Your task to perform on an android device: open app "Viber Messenger" Image 0: 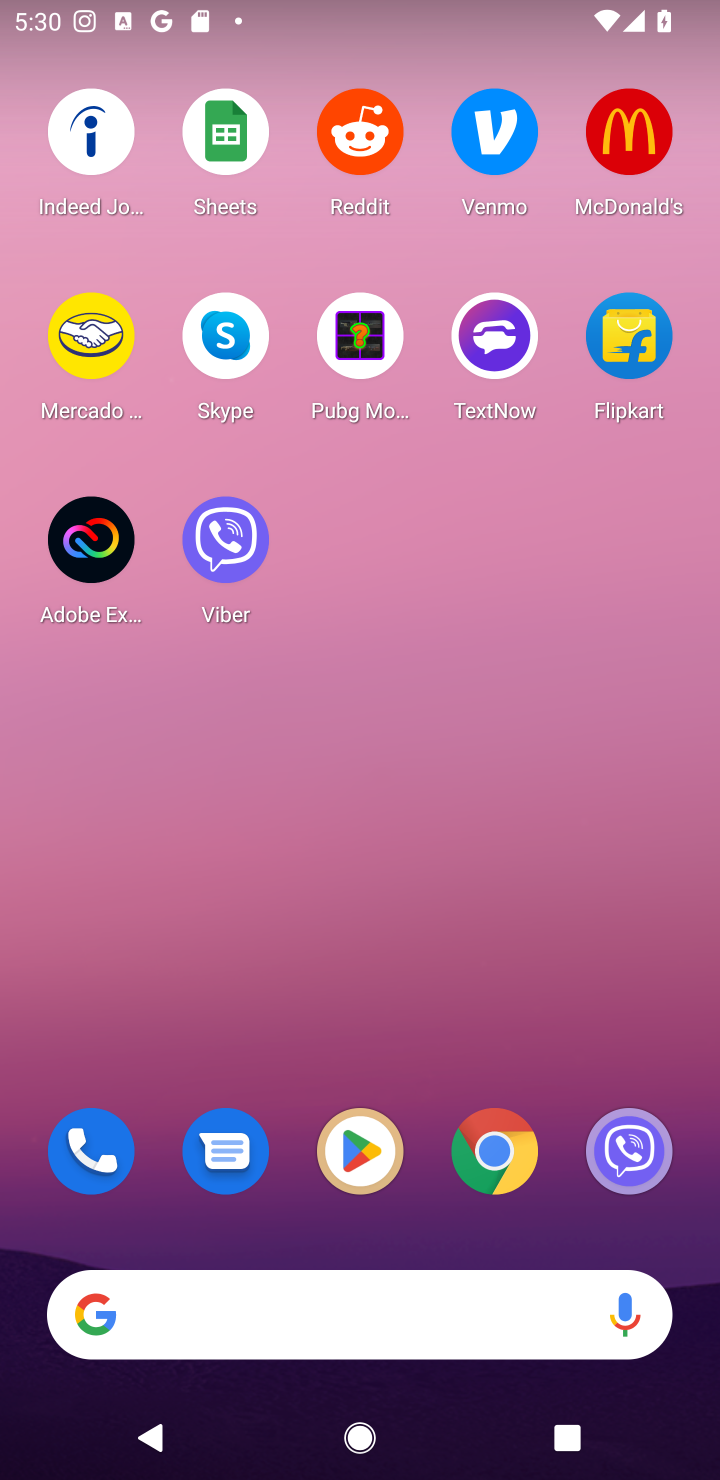
Step 0: press home button
Your task to perform on an android device: open app "Viber Messenger" Image 1: 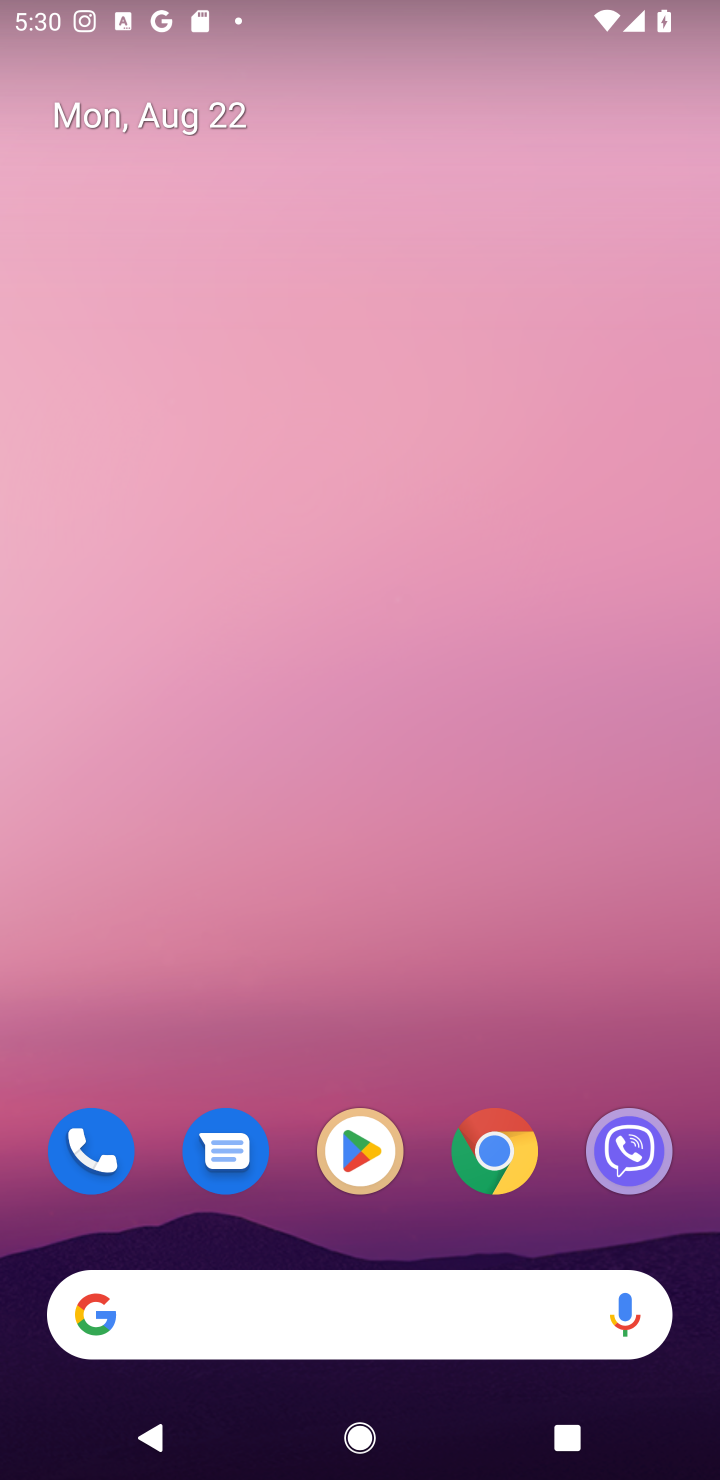
Step 1: click (351, 1159)
Your task to perform on an android device: open app "Viber Messenger" Image 2: 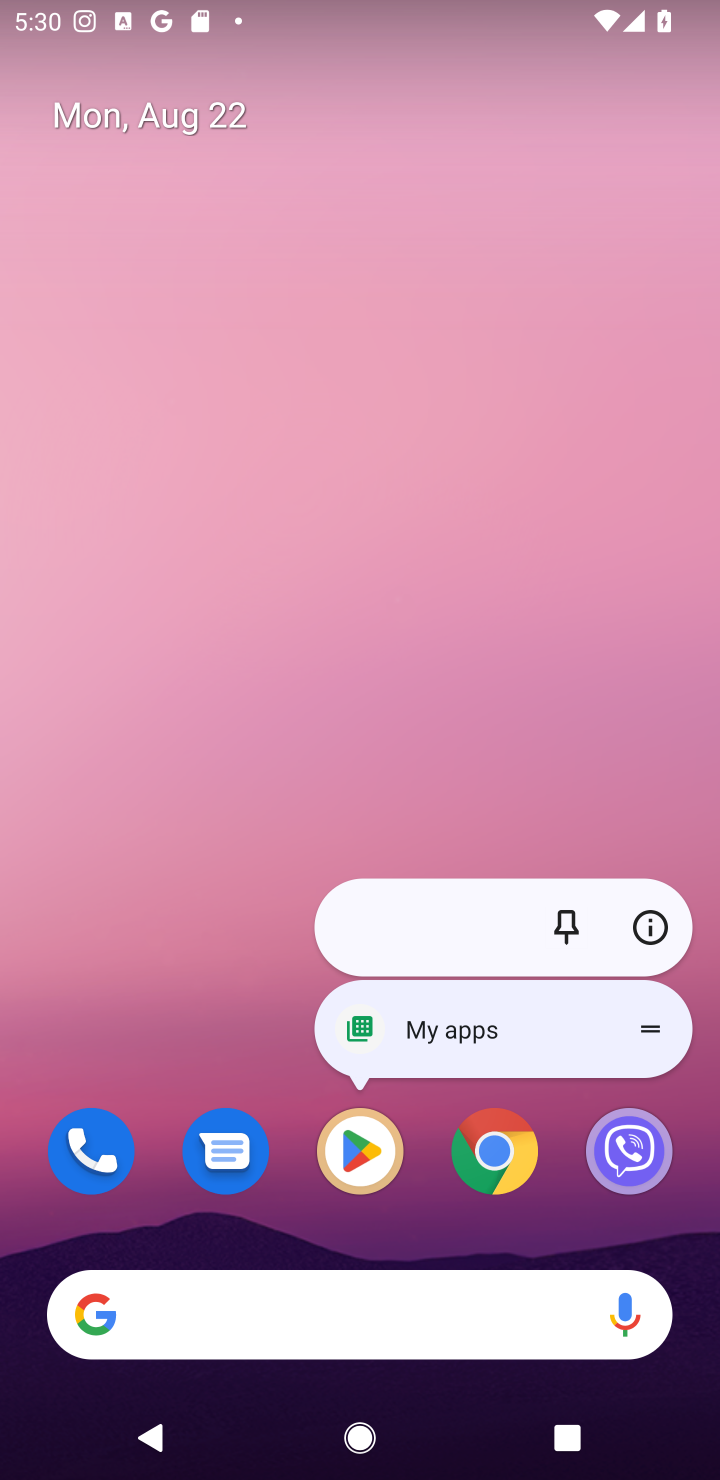
Step 2: click (351, 1164)
Your task to perform on an android device: open app "Viber Messenger" Image 3: 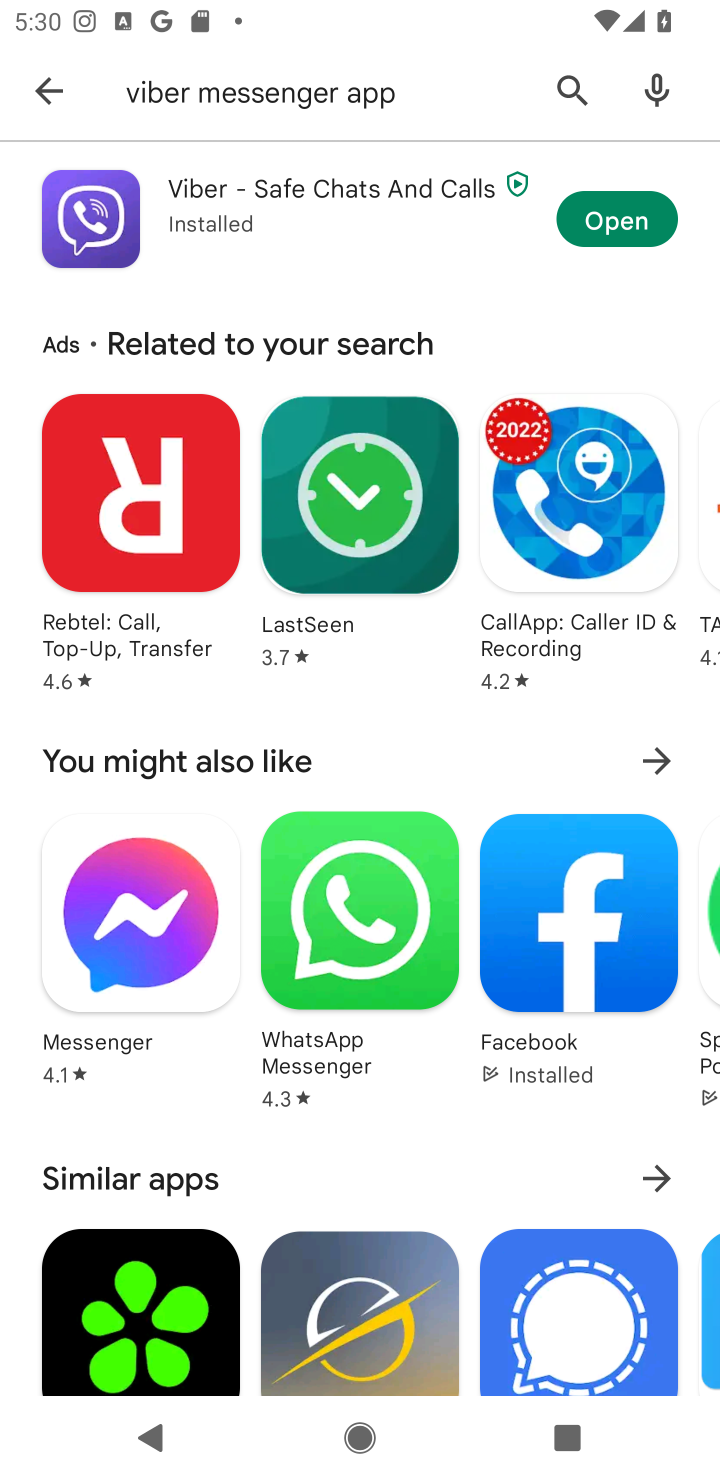
Step 3: click (563, 82)
Your task to perform on an android device: open app "Viber Messenger" Image 4: 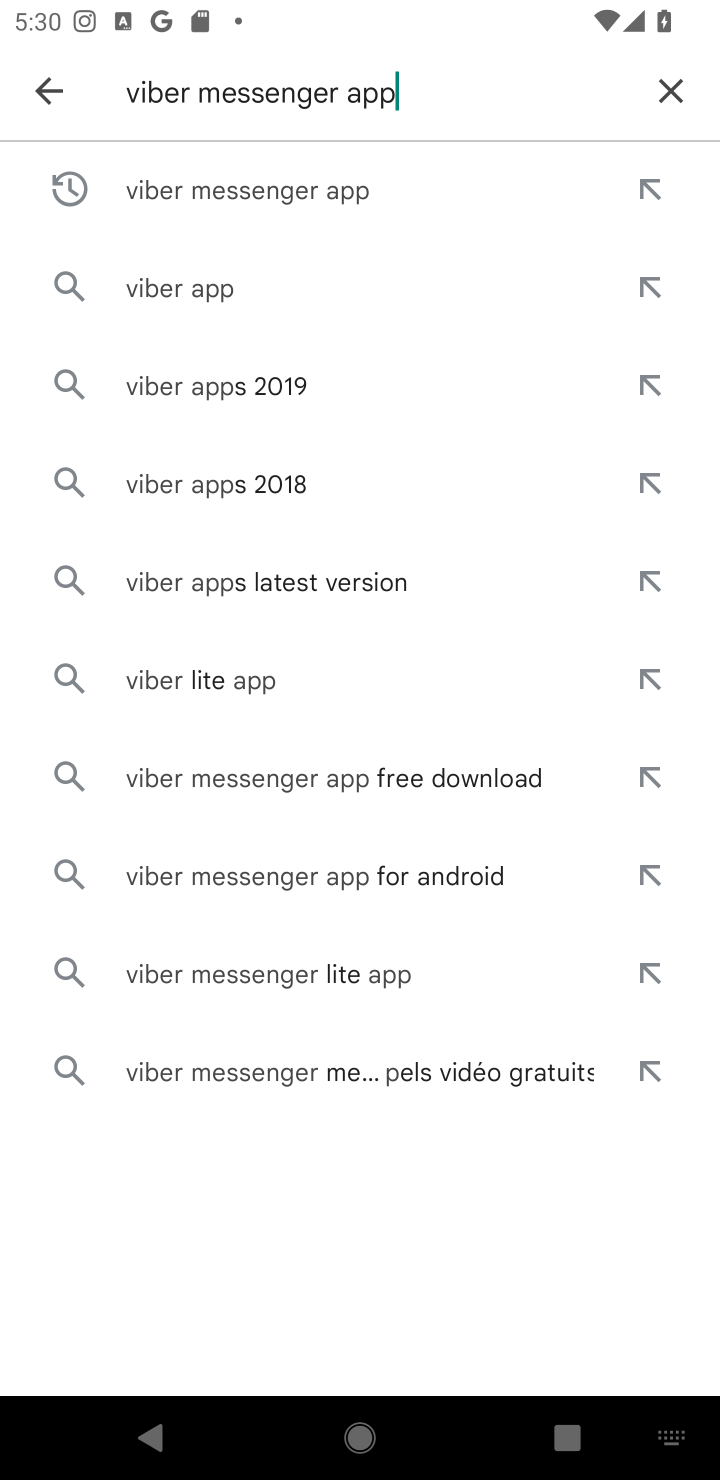
Step 4: click (664, 85)
Your task to perform on an android device: open app "Viber Messenger" Image 5: 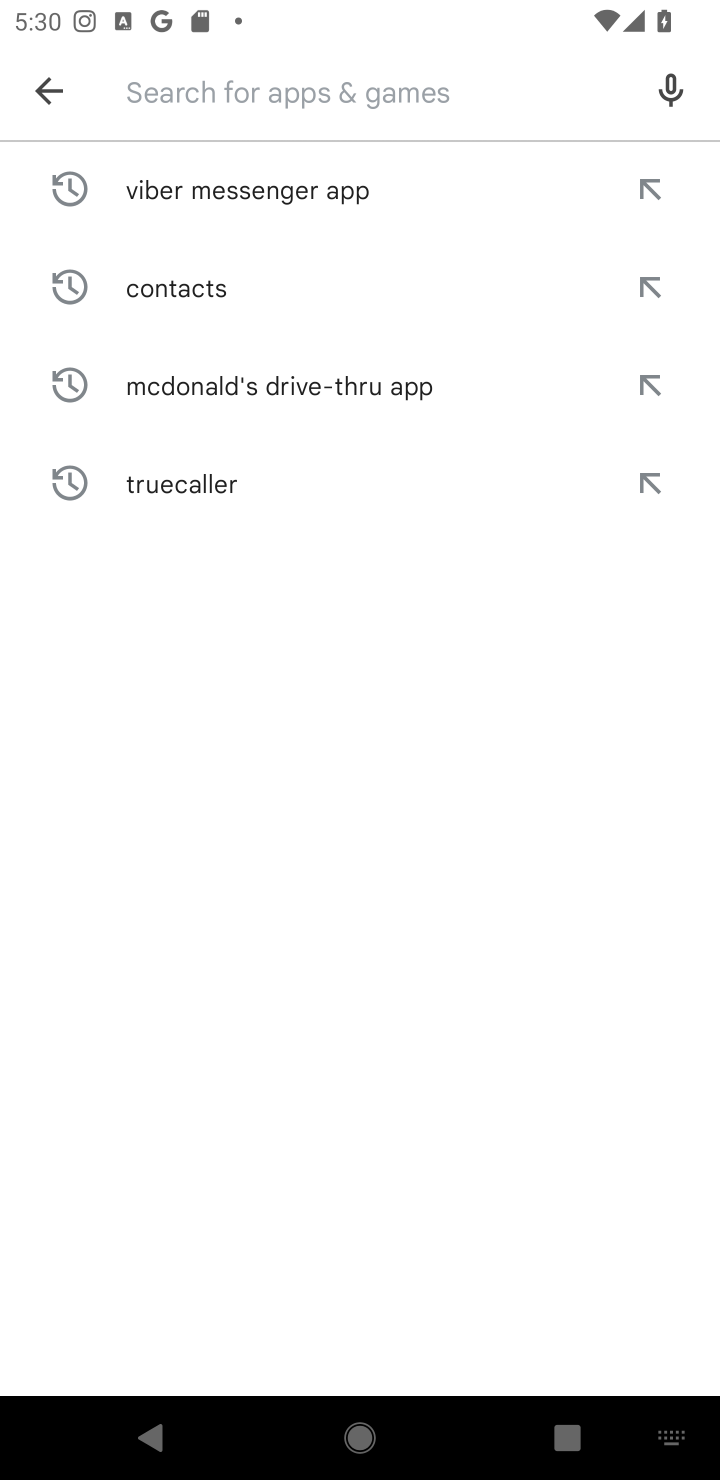
Step 5: type "Viber Messenger"
Your task to perform on an android device: open app "Viber Messenger" Image 6: 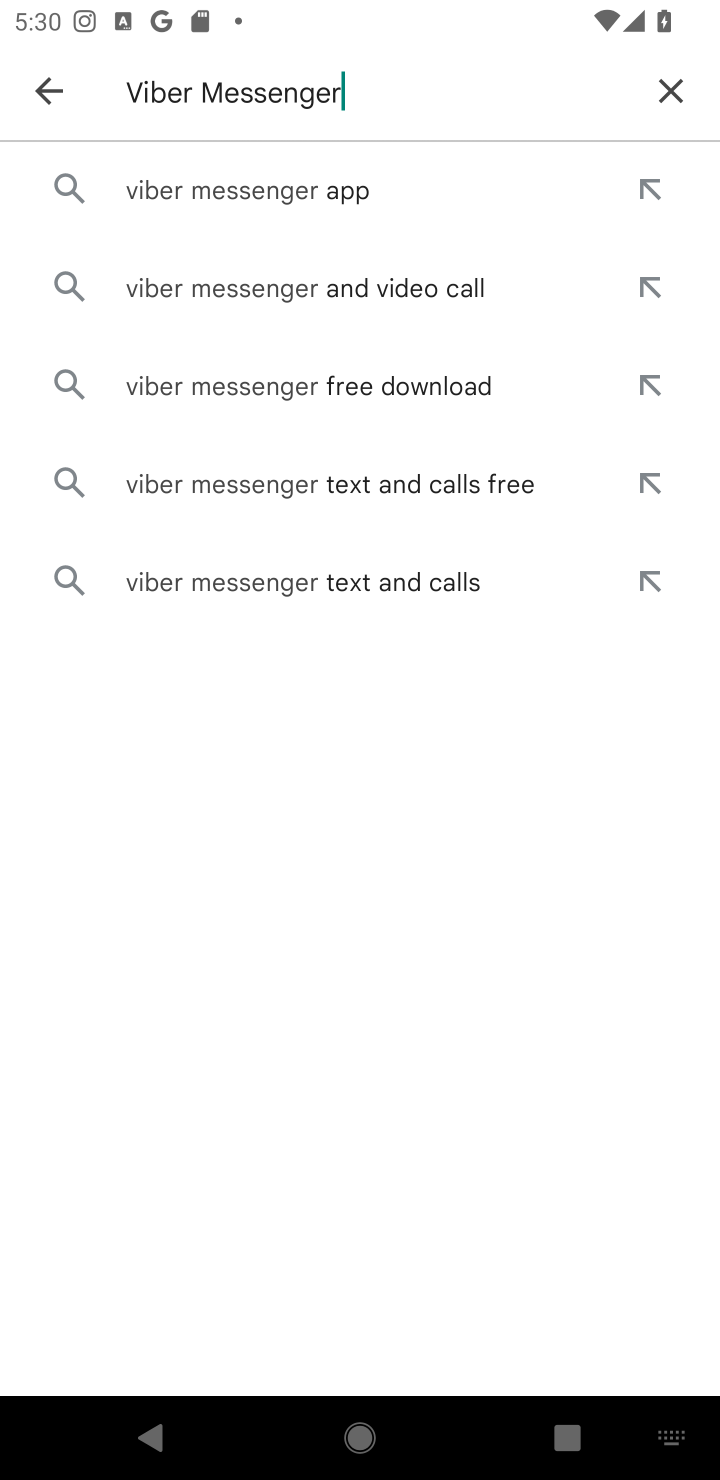
Step 6: click (337, 197)
Your task to perform on an android device: open app "Viber Messenger" Image 7: 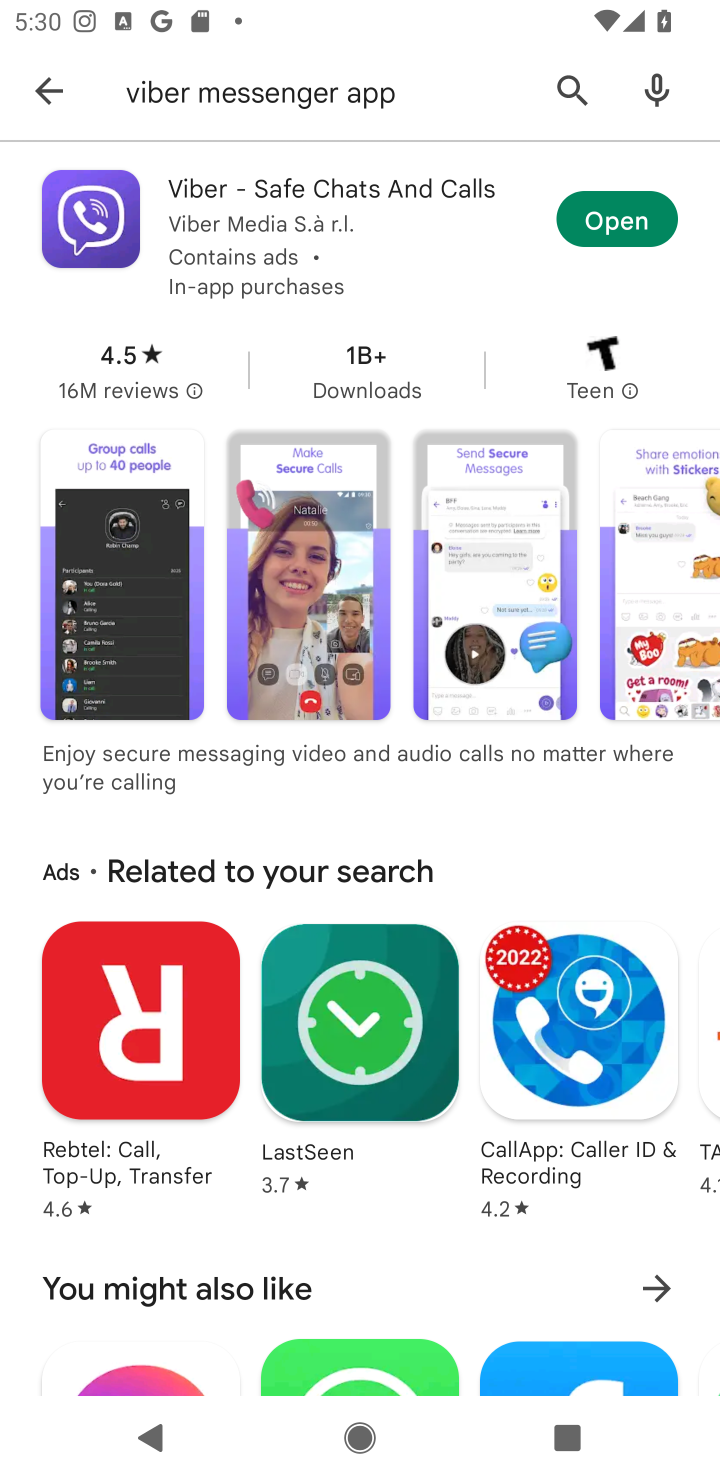
Step 7: click (638, 227)
Your task to perform on an android device: open app "Viber Messenger" Image 8: 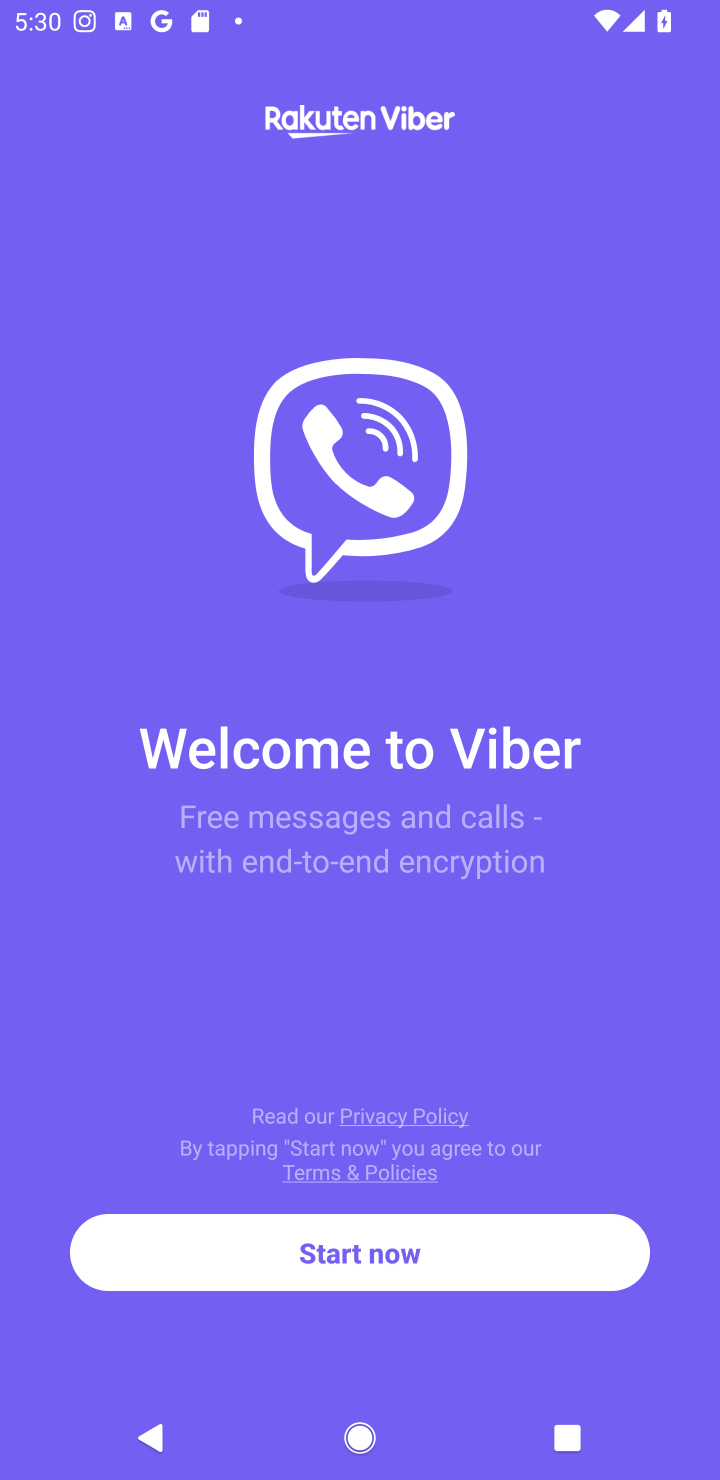
Step 8: task complete